Your task to perform on an android device: change notification settings in the gmail app Image 0: 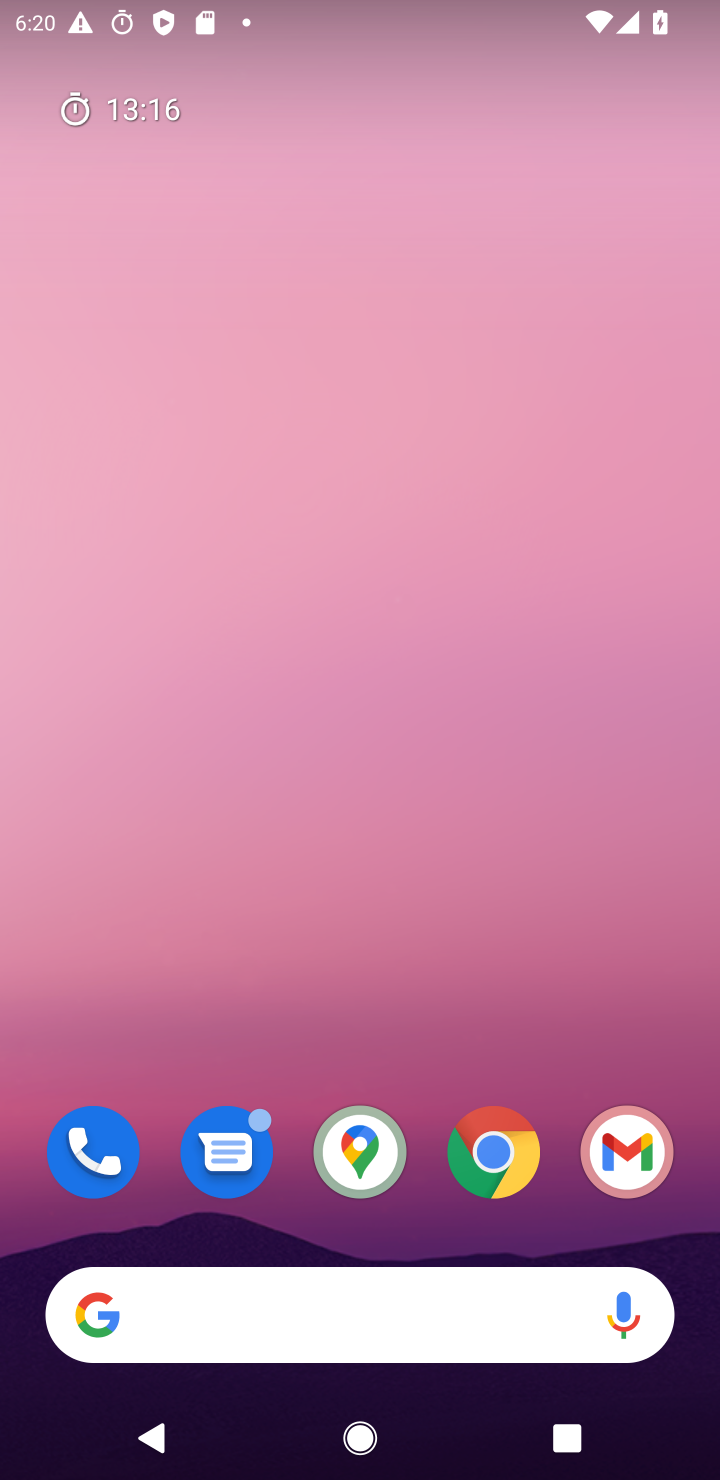
Step 0: drag from (377, 866) to (466, 0)
Your task to perform on an android device: change notification settings in the gmail app Image 1: 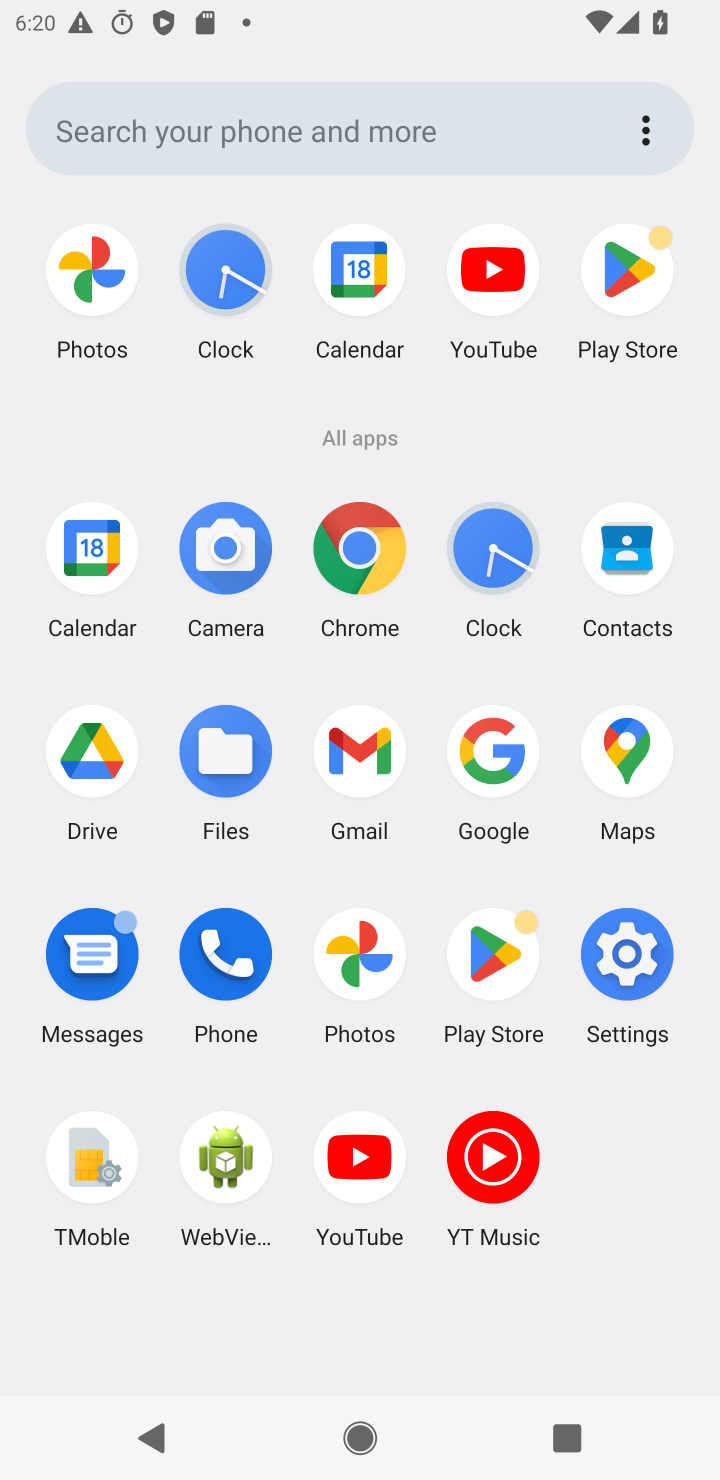
Step 1: click (354, 760)
Your task to perform on an android device: change notification settings in the gmail app Image 2: 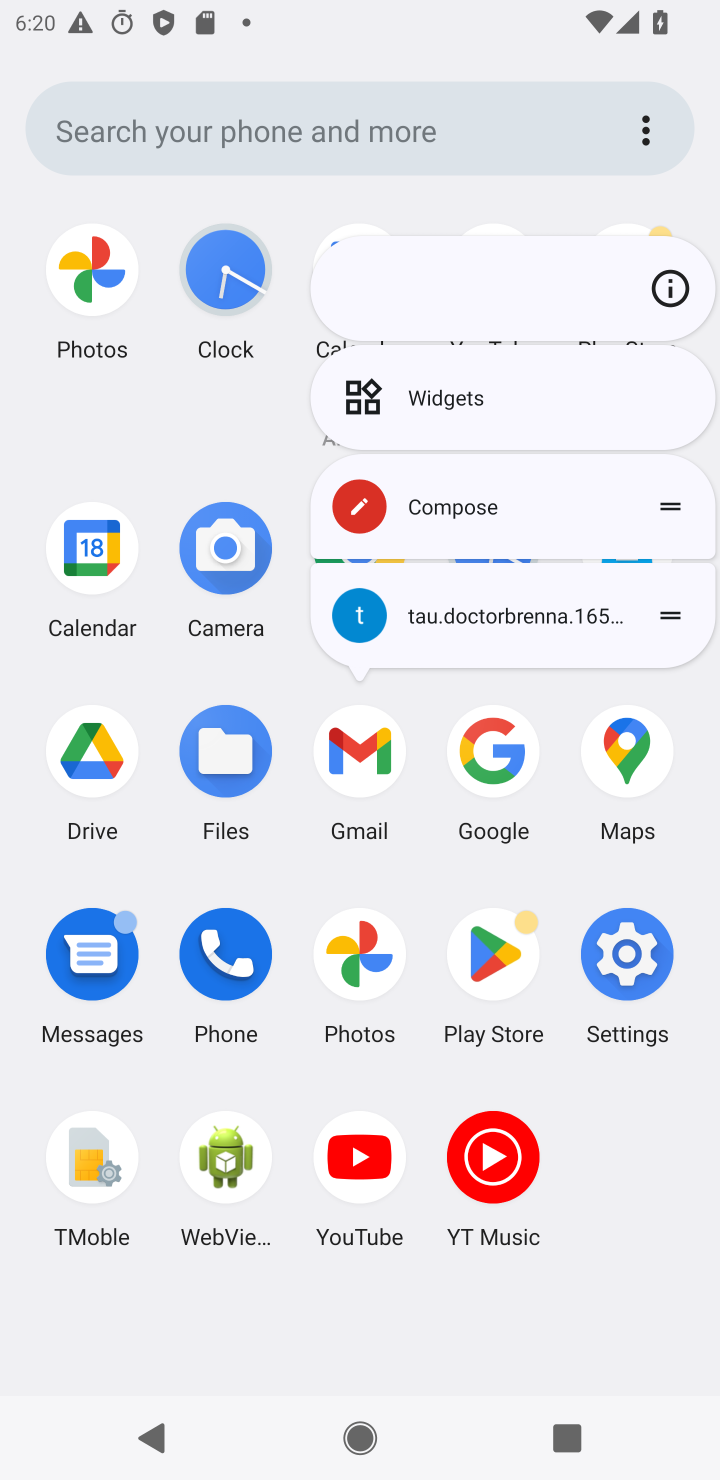
Step 2: click (673, 272)
Your task to perform on an android device: change notification settings in the gmail app Image 3: 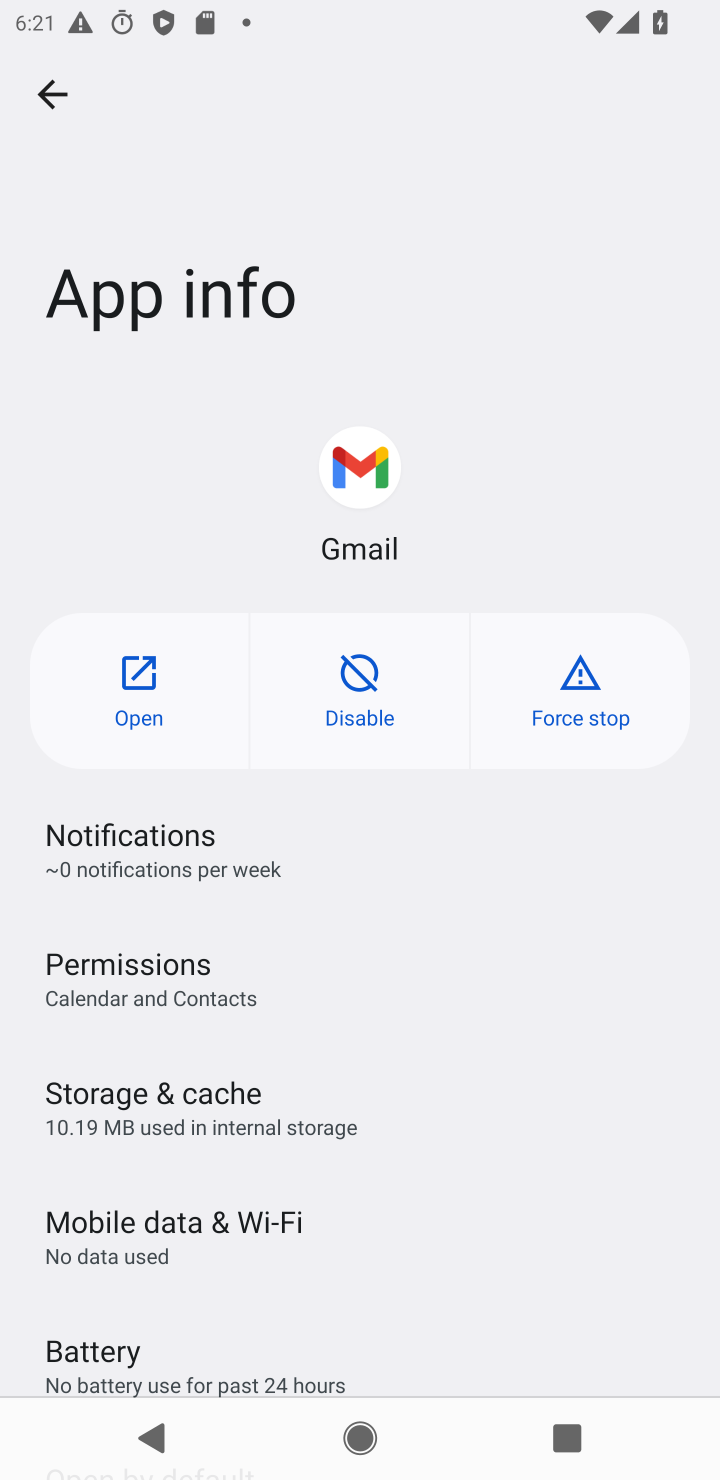
Step 3: click (193, 843)
Your task to perform on an android device: change notification settings in the gmail app Image 4: 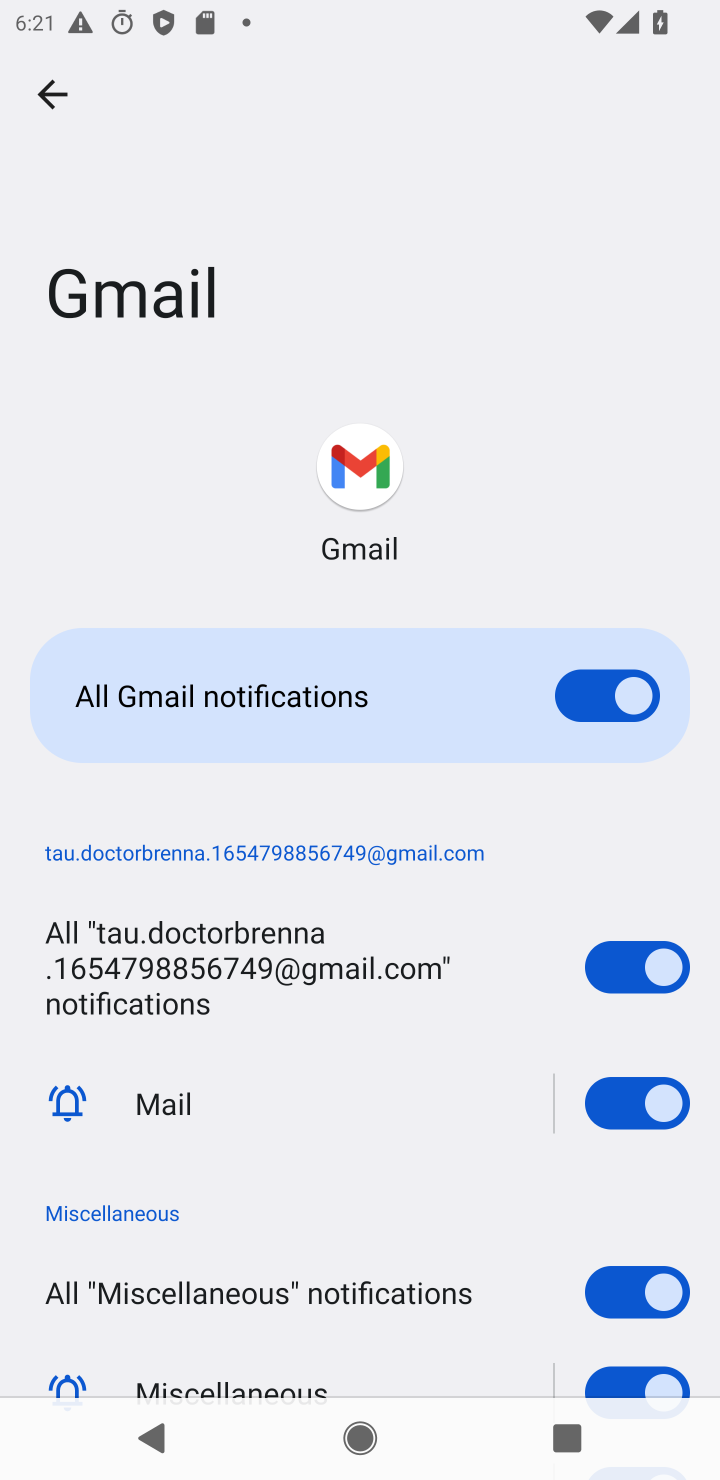
Step 4: task complete